Your task to perform on an android device: Go to Amazon Image 0: 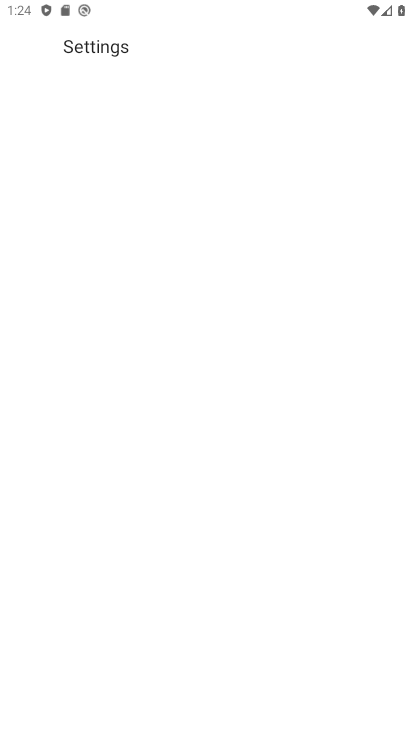
Step 0: drag from (209, 532) to (190, 95)
Your task to perform on an android device: Go to Amazon Image 1: 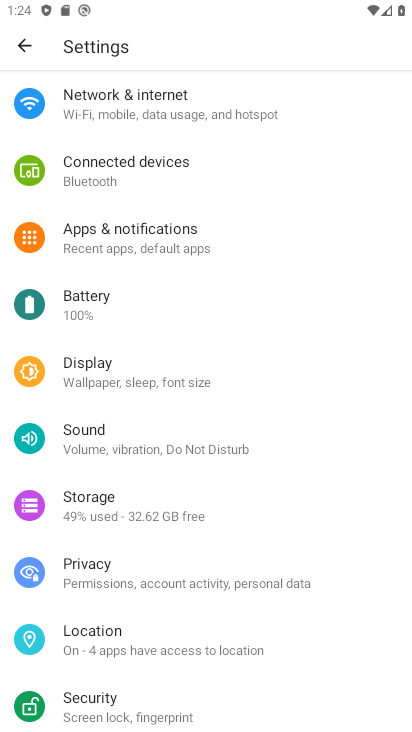
Step 1: press home button
Your task to perform on an android device: Go to Amazon Image 2: 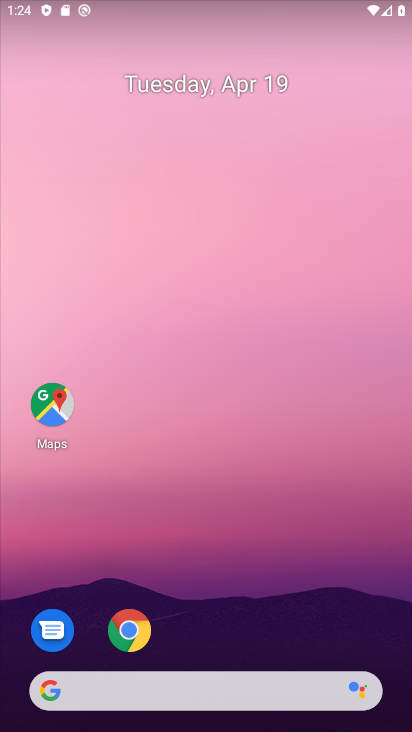
Step 2: click (137, 629)
Your task to perform on an android device: Go to Amazon Image 3: 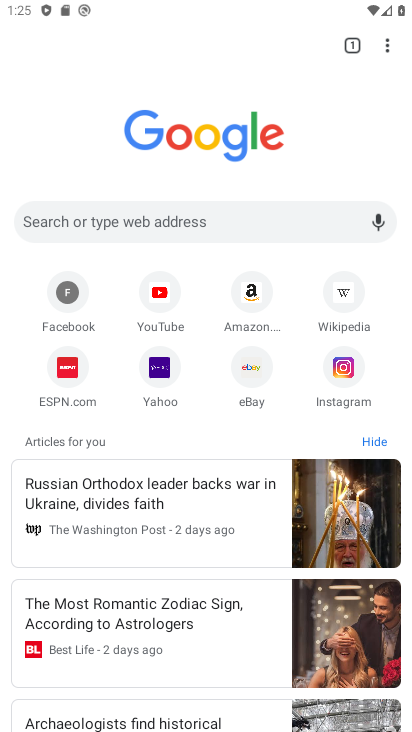
Step 3: click (249, 302)
Your task to perform on an android device: Go to Amazon Image 4: 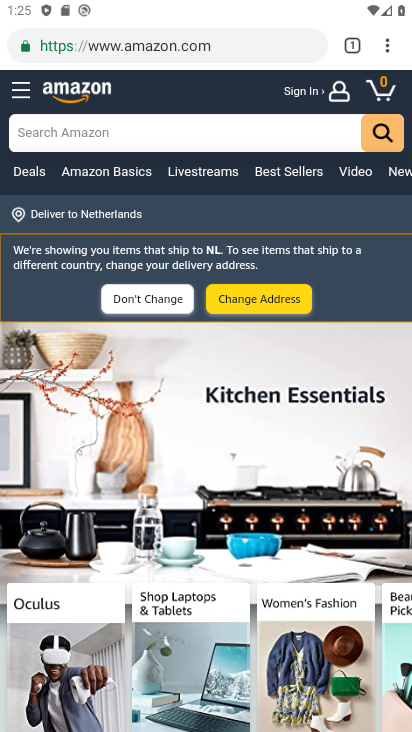
Step 4: task complete